Your task to perform on an android device: see sites visited before in the chrome app Image 0: 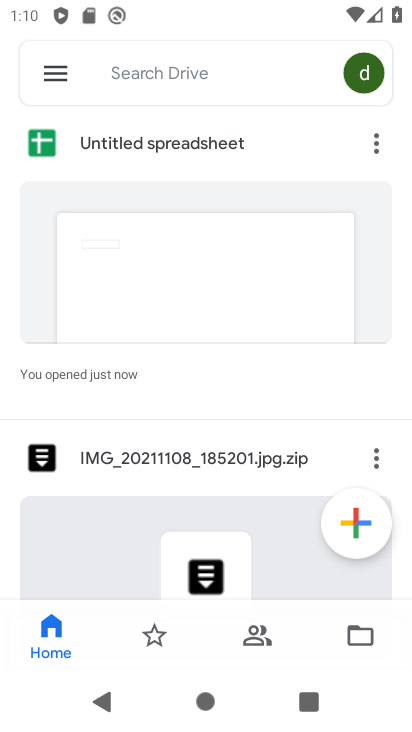
Step 0: press home button
Your task to perform on an android device: see sites visited before in the chrome app Image 1: 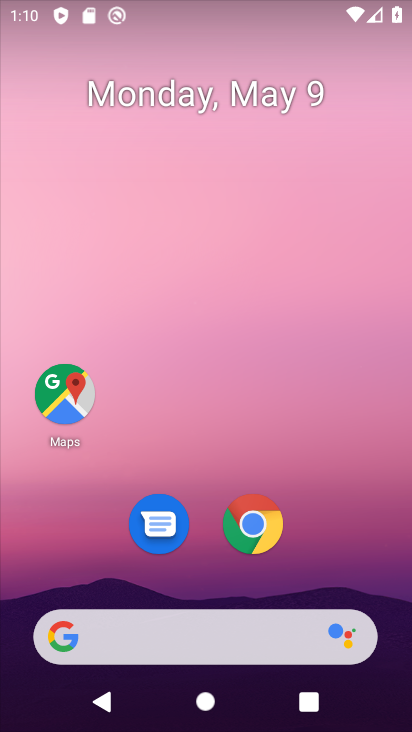
Step 1: drag from (214, 455) to (239, 61)
Your task to perform on an android device: see sites visited before in the chrome app Image 2: 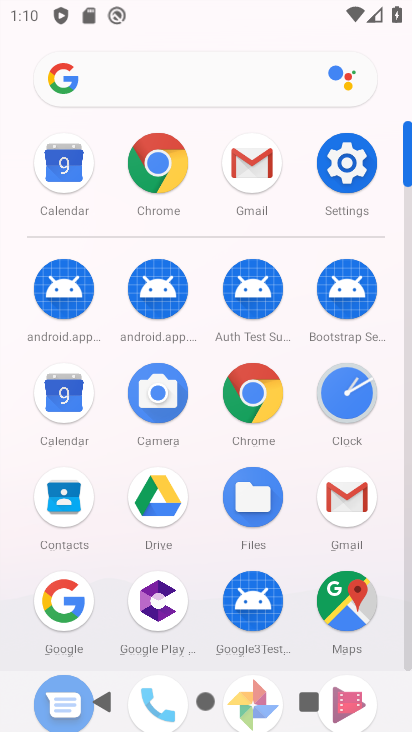
Step 2: click (161, 160)
Your task to perform on an android device: see sites visited before in the chrome app Image 3: 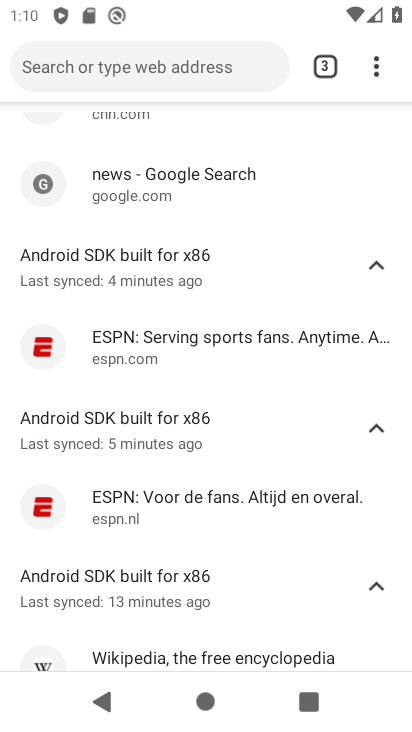
Step 3: task complete